Your task to perform on an android device: toggle wifi Image 0: 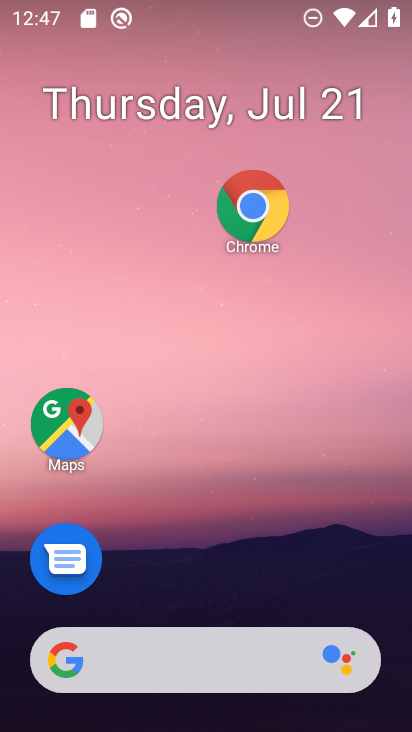
Step 0: drag from (239, 635) to (276, 218)
Your task to perform on an android device: toggle wifi Image 1: 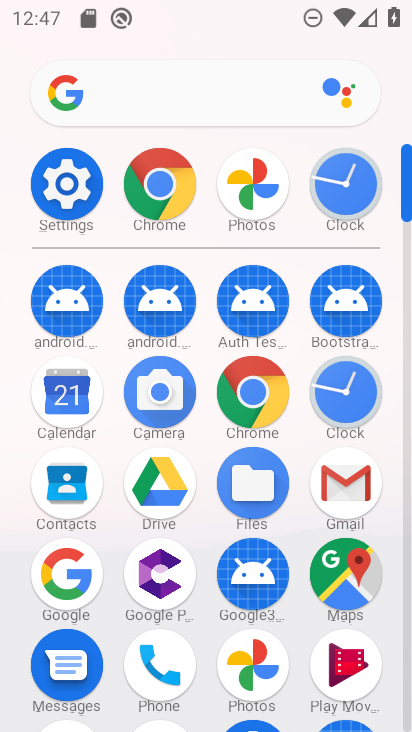
Step 1: click (69, 214)
Your task to perform on an android device: toggle wifi Image 2: 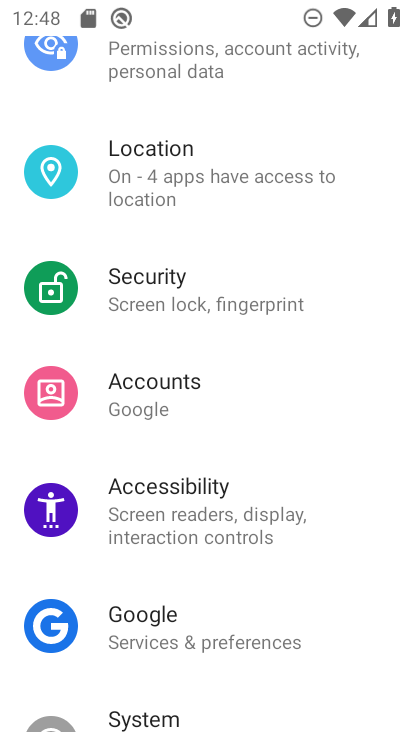
Step 2: drag from (167, 296) to (172, 553)
Your task to perform on an android device: toggle wifi Image 3: 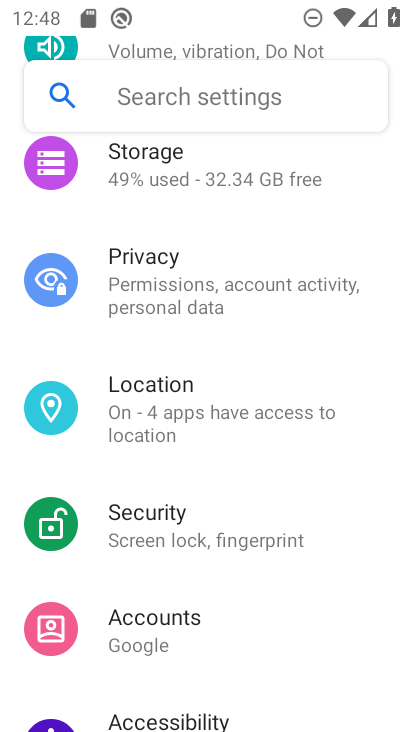
Step 3: drag from (208, 318) to (209, 667)
Your task to perform on an android device: toggle wifi Image 4: 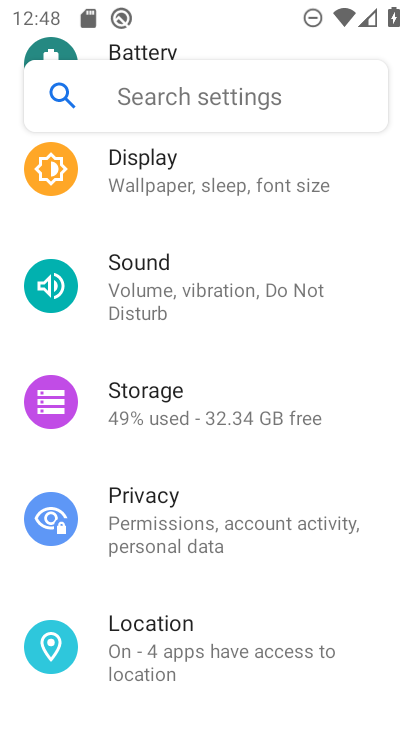
Step 4: drag from (246, 261) to (209, 639)
Your task to perform on an android device: toggle wifi Image 5: 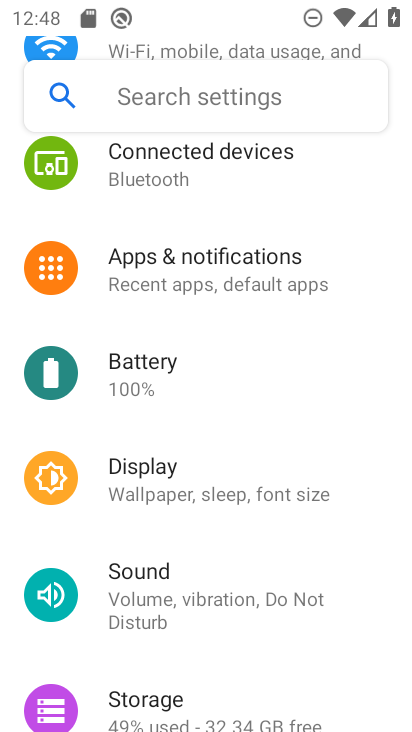
Step 5: drag from (227, 344) to (227, 723)
Your task to perform on an android device: toggle wifi Image 6: 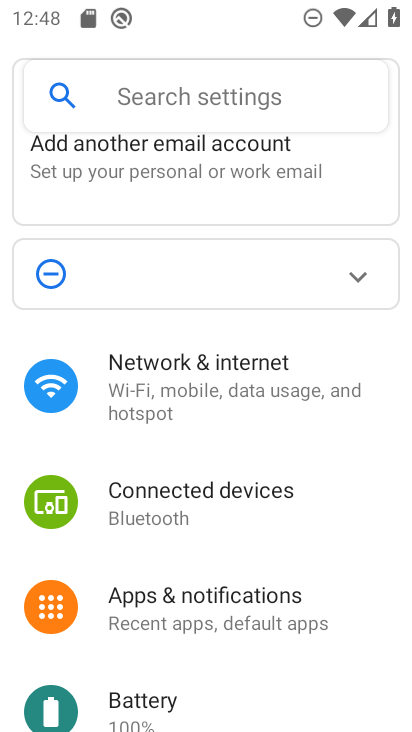
Step 6: click (251, 413)
Your task to perform on an android device: toggle wifi Image 7: 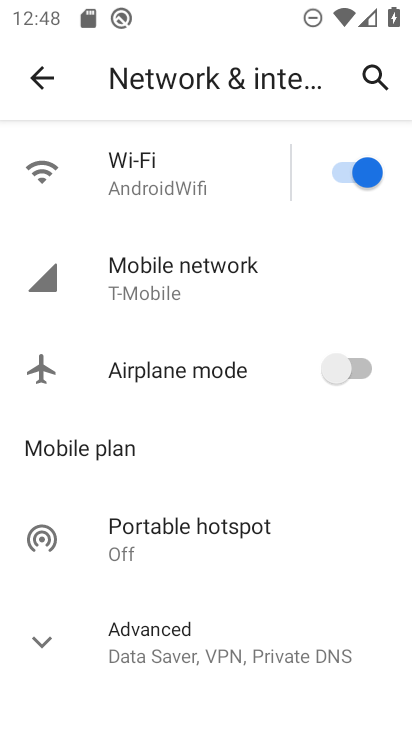
Step 7: click (331, 182)
Your task to perform on an android device: toggle wifi Image 8: 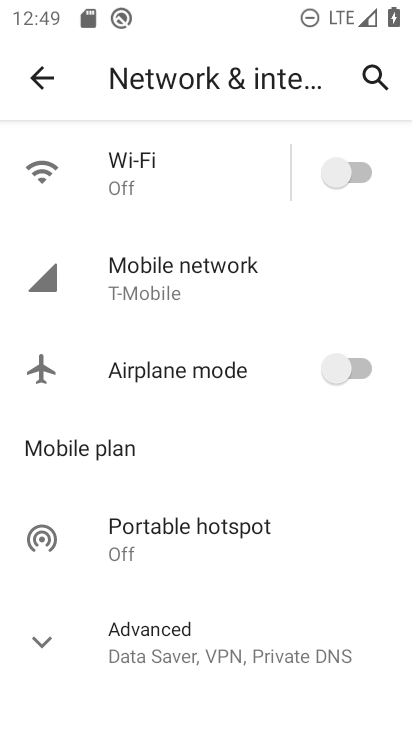
Step 8: task complete